Your task to perform on an android device: all mails in gmail Image 0: 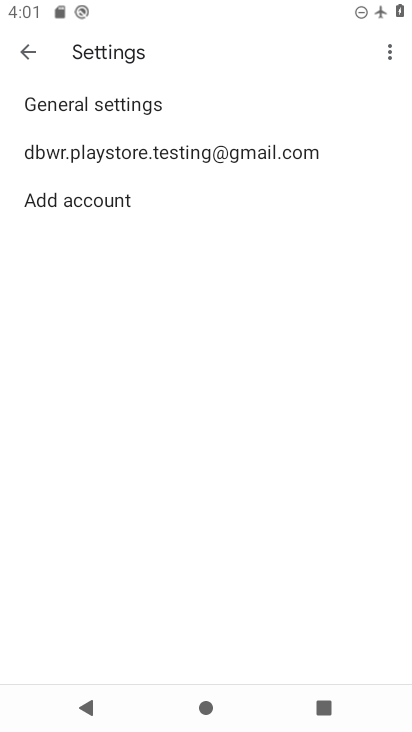
Step 0: press home button
Your task to perform on an android device: all mails in gmail Image 1: 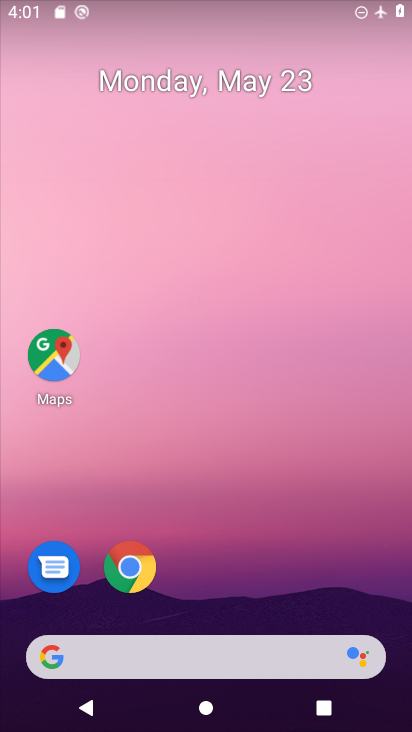
Step 1: drag from (384, 573) to (260, 71)
Your task to perform on an android device: all mails in gmail Image 2: 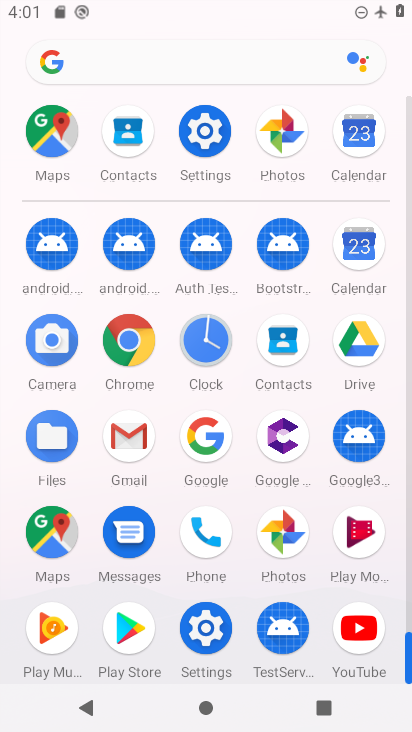
Step 2: click (122, 431)
Your task to perform on an android device: all mails in gmail Image 3: 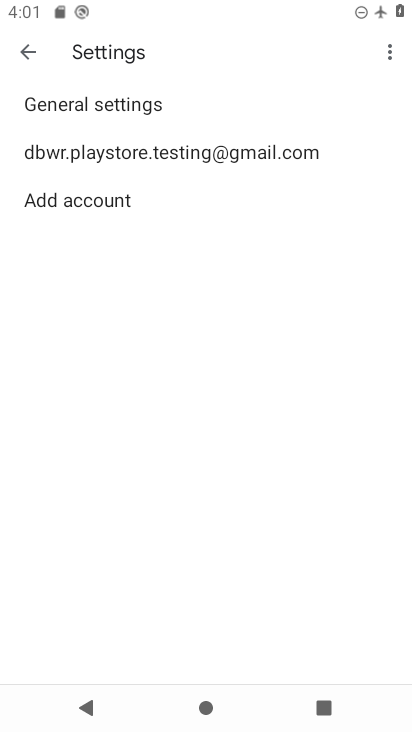
Step 3: press back button
Your task to perform on an android device: all mails in gmail Image 4: 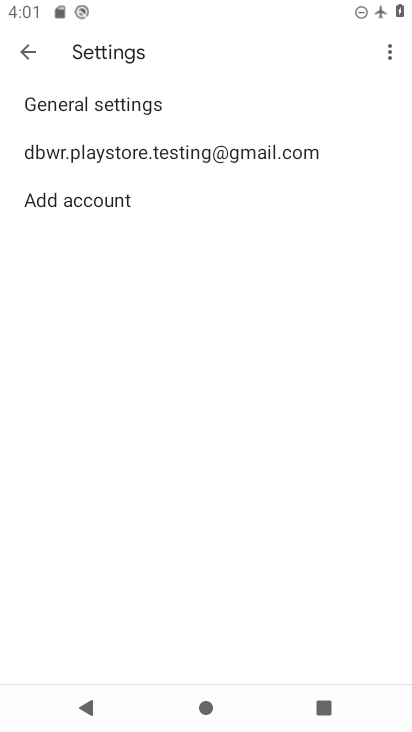
Step 4: press back button
Your task to perform on an android device: all mails in gmail Image 5: 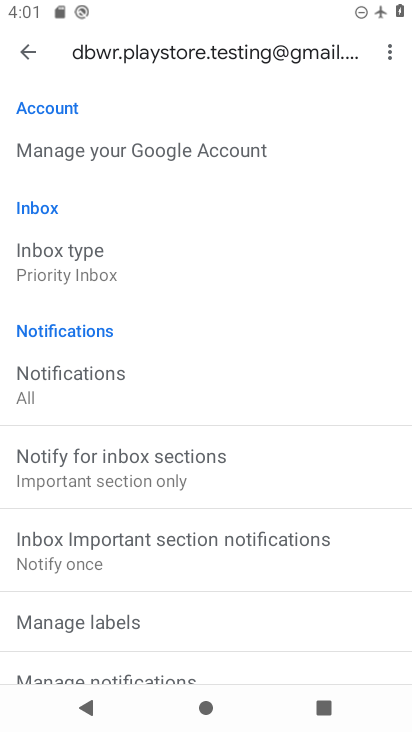
Step 5: press back button
Your task to perform on an android device: all mails in gmail Image 6: 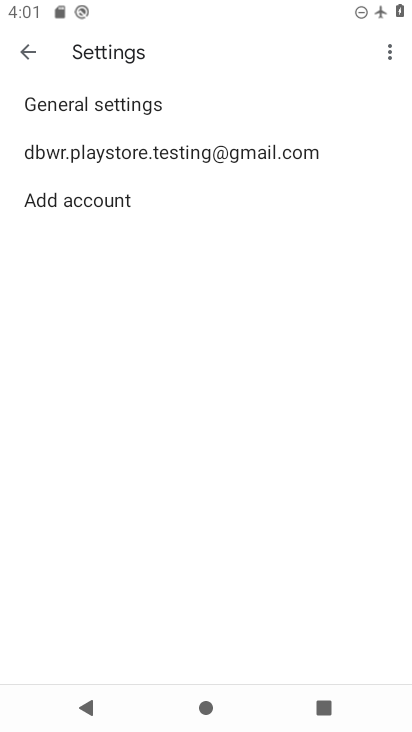
Step 6: press back button
Your task to perform on an android device: all mails in gmail Image 7: 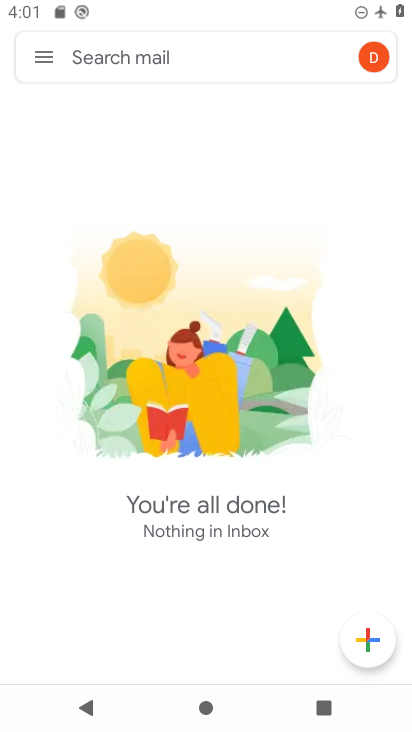
Step 7: click (39, 54)
Your task to perform on an android device: all mails in gmail Image 8: 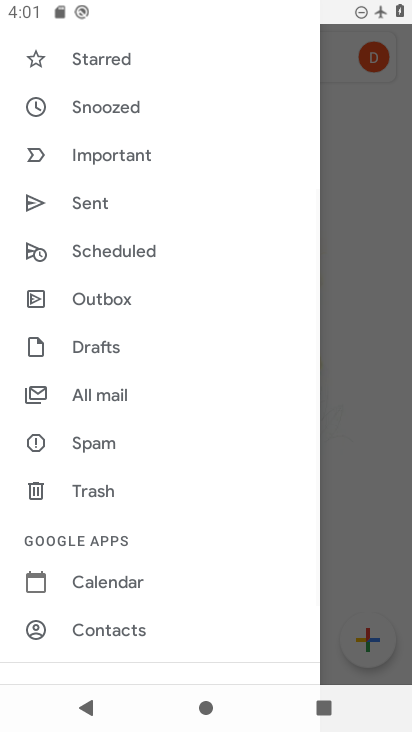
Step 8: click (91, 395)
Your task to perform on an android device: all mails in gmail Image 9: 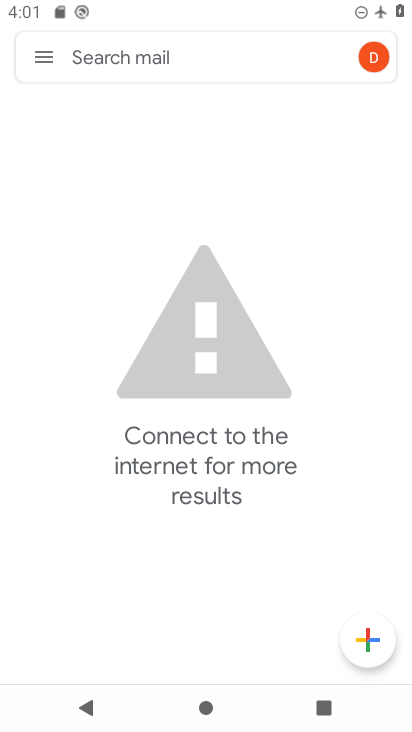
Step 9: task complete